Your task to perform on an android device: check google app version Image 0: 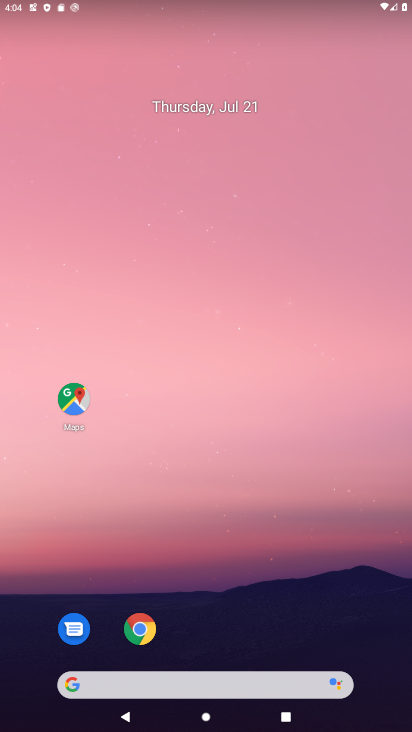
Step 0: drag from (282, 585) to (203, 129)
Your task to perform on an android device: check google app version Image 1: 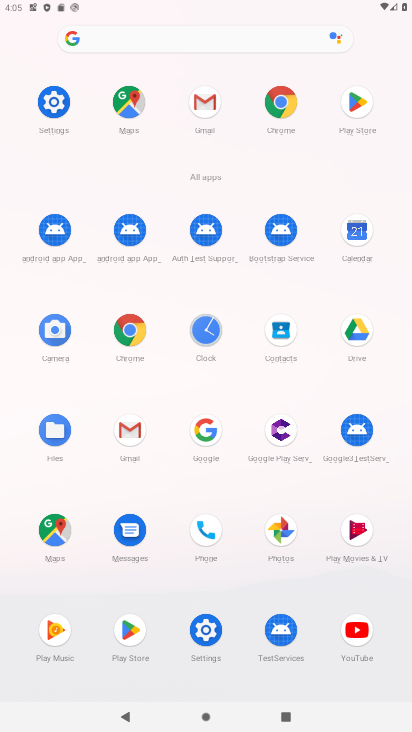
Step 1: click (206, 640)
Your task to perform on an android device: check google app version Image 2: 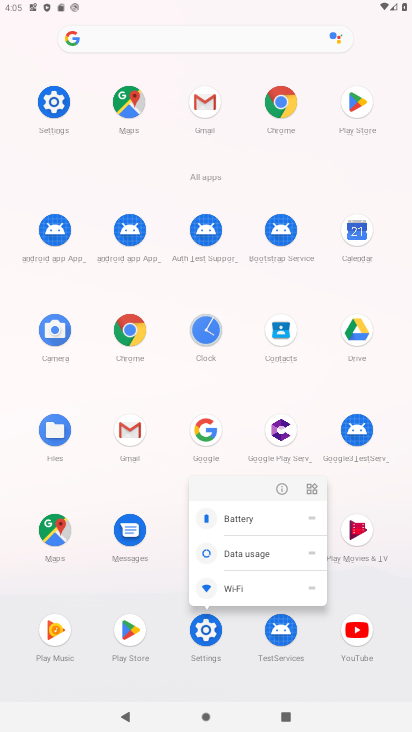
Step 2: click (205, 436)
Your task to perform on an android device: check google app version Image 3: 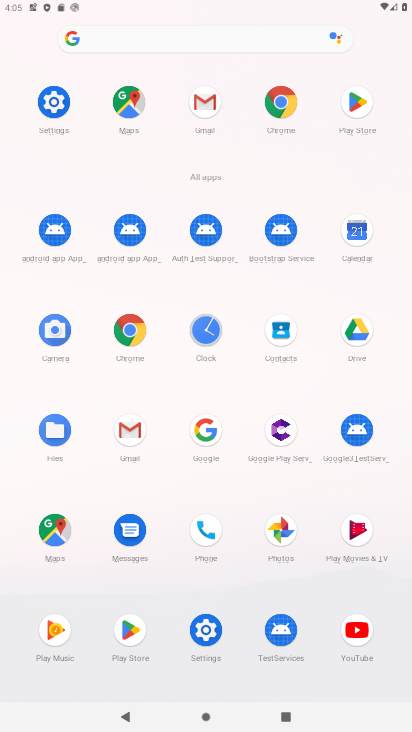
Step 3: click (200, 429)
Your task to perform on an android device: check google app version Image 4: 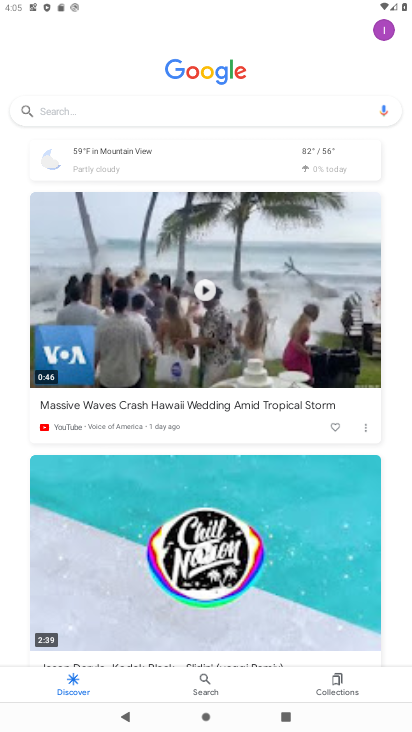
Step 4: click (382, 27)
Your task to perform on an android device: check google app version Image 5: 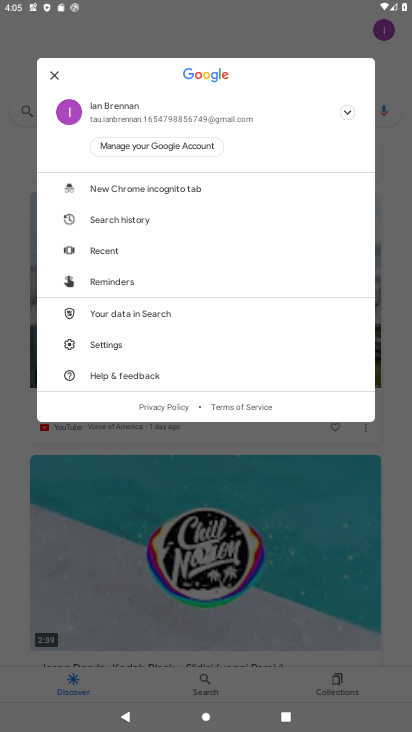
Step 5: click (100, 346)
Your task to perform on an android device: check google app version Image 6: 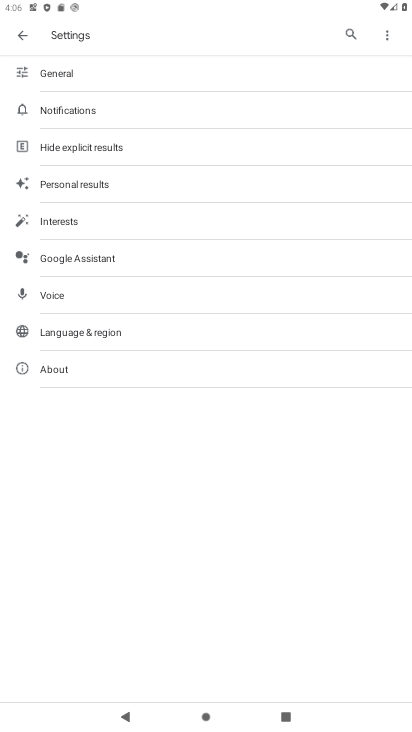
Step 6: click (53, 376)
Your task to perform on an android device: check google app version Image 7: 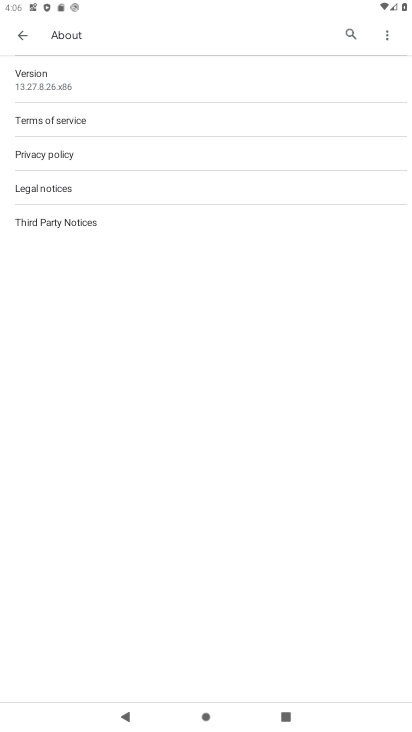
Step 7: click (43, 81)
Your task to perform on an android device: check google app version Image 8: 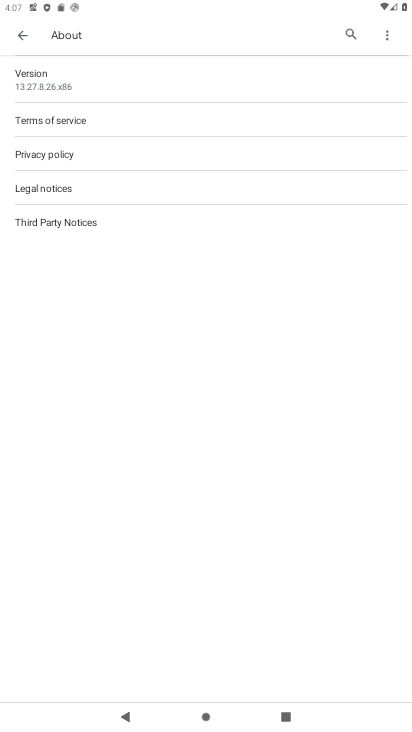
Step 8: task complete